Your task to perform on an android device: What's on my calendar tomorrow? Image 0: 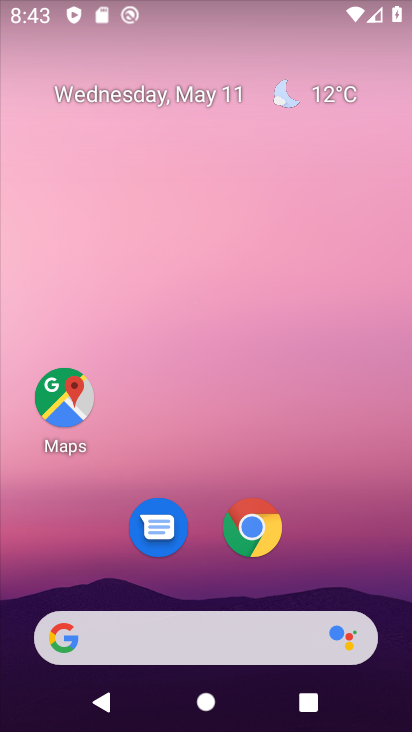
Step 0: drag from (381, 544) to (292, 116)
Your task to perform on an android device: What's on my calendar tomorrow? Image 1: 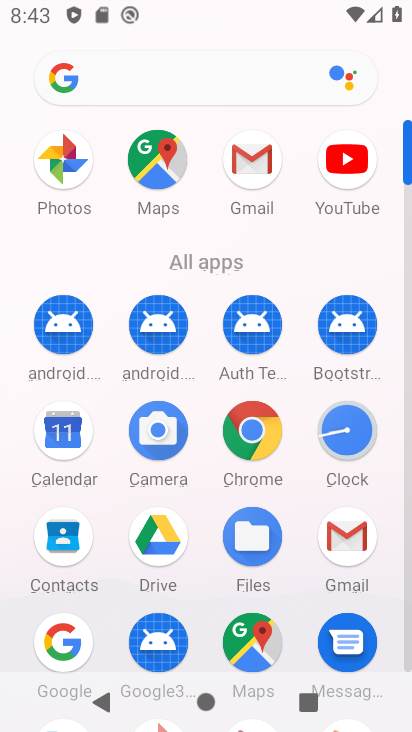
Step 1: click (79, 444)
Your task to perform on an android device: What's on my calendar tomorrow? Image 2: 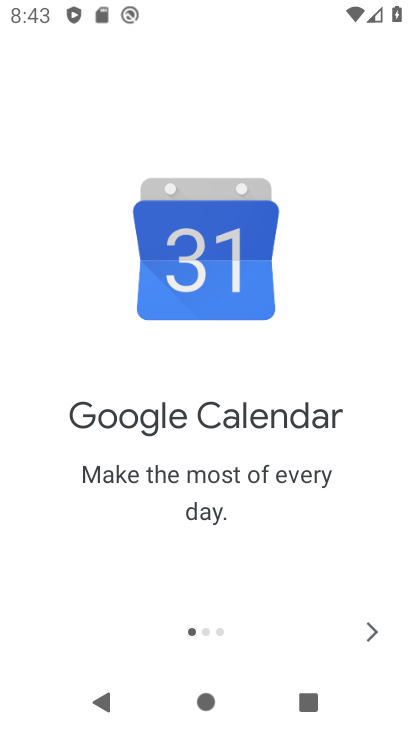
Step 2: click (365, 627)
Your task to perform on an android device: What's on my calendar tomorrow? Image 3: 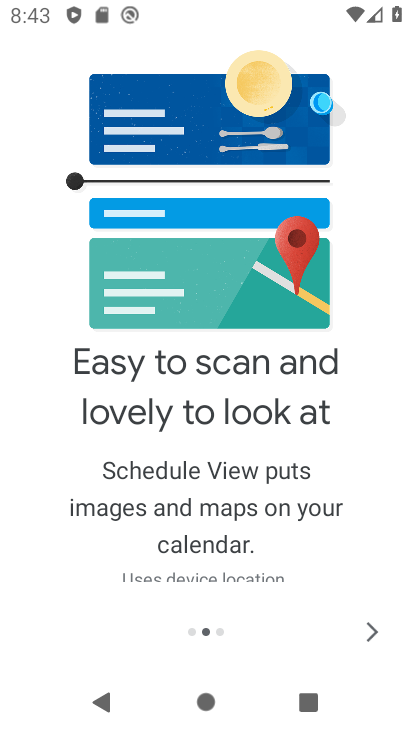
Step 3: click (365, 620)
Your task to perform on an android device: What's on my calendar tomorrow? Image 4: 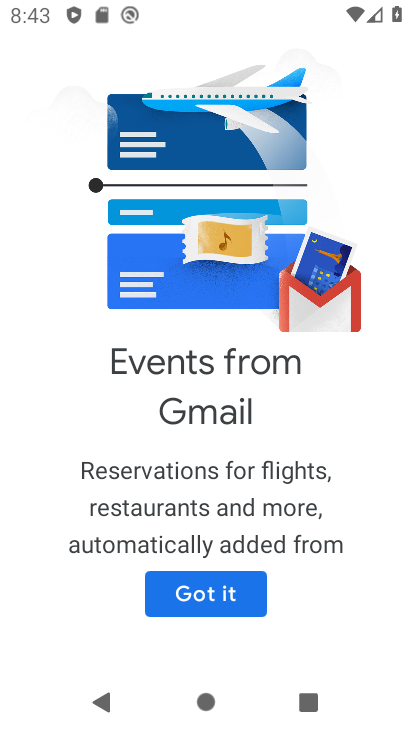
Step 4: click (199, 589)
Your task to perform on an android device: What's on my calendar tomorrow? Image 5: 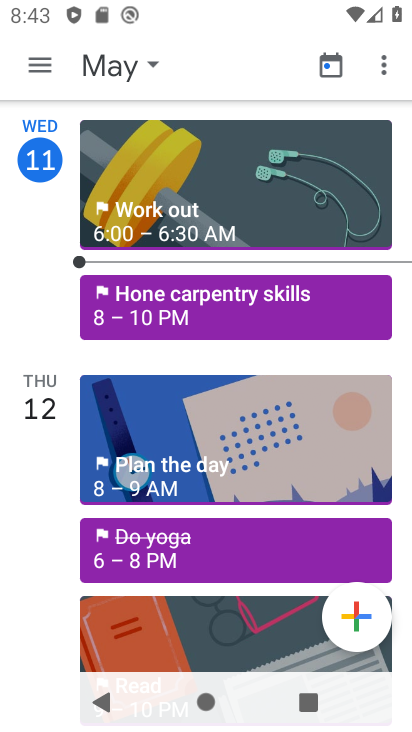
Step 5: task complete